Your task to perform on an android device: clear all cookies in the chrome app Image 0: 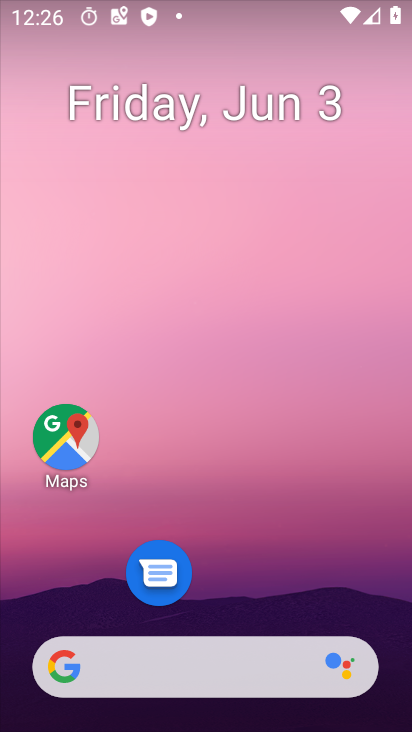
Step 0: drag from (269, 658) to (316, 66)
Your task to perform on an android device: clear all cookies in the chrome app Image 1: 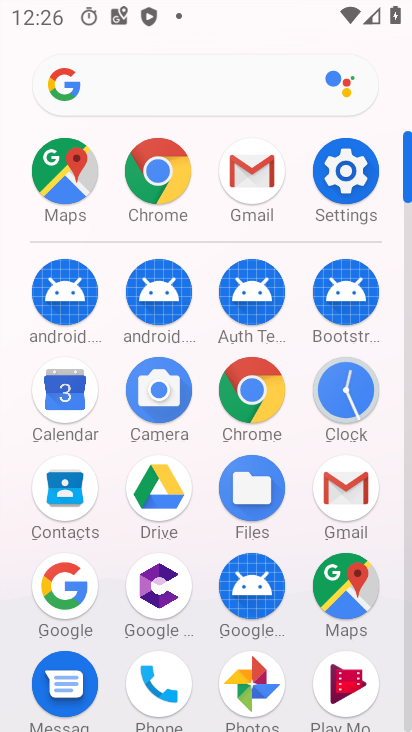
Step 1: click (263, 386)
Your task to perform on an android device: clear all cookies in the chrome app Image 2: 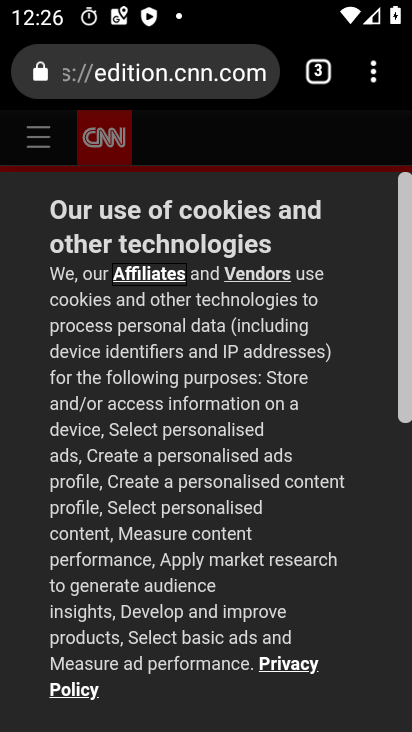
Step 2: drag from (368, 60) to (150, 558)
Your task to perform on an android device: clear all cookies in the chrome app Image 3: 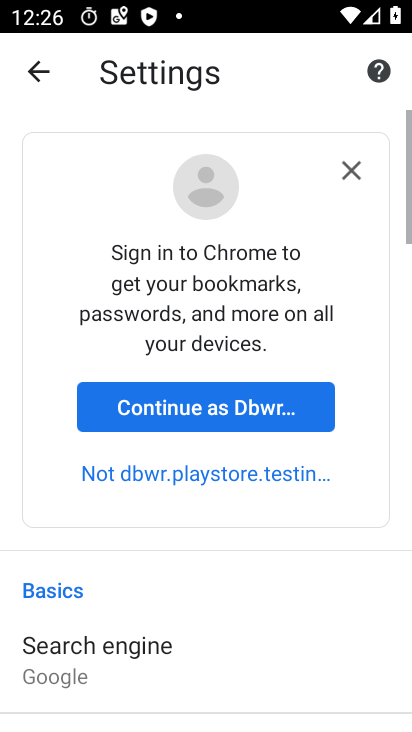
Step 3: drag from (156, 634) to (200, 152)
Your task to perform on an android device: clear all cookies in the chrome app Image 4: 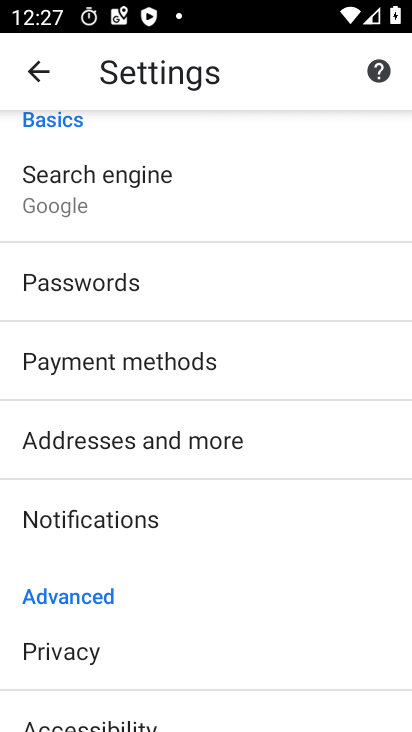
Step 4: click (166, 669)
Your task to perform on an android device: clear all cookies in the chrome app Image 5: 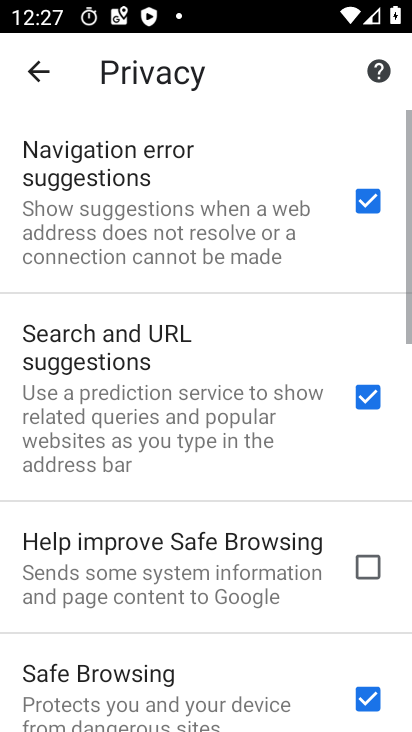
Step 5: drag from (260, 649) to (273, 154)
Your task to perform on an android device: clear all cookies in the chrome app Image 6: 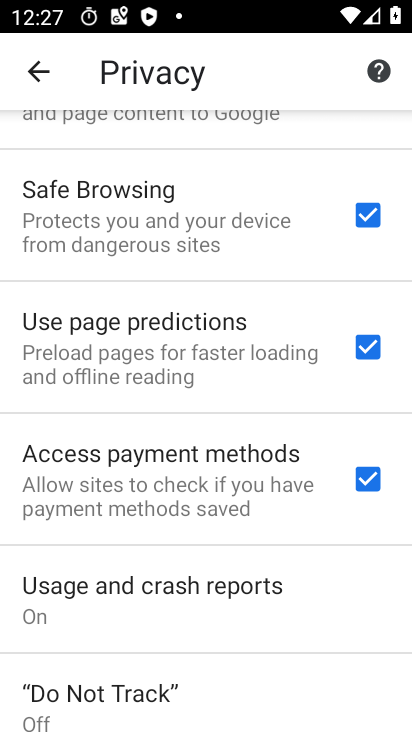
Step 6: drag from (221, 696) to (259, 220)
Your task to perform on an android device: clear all cookies in the chrome app Image 7: 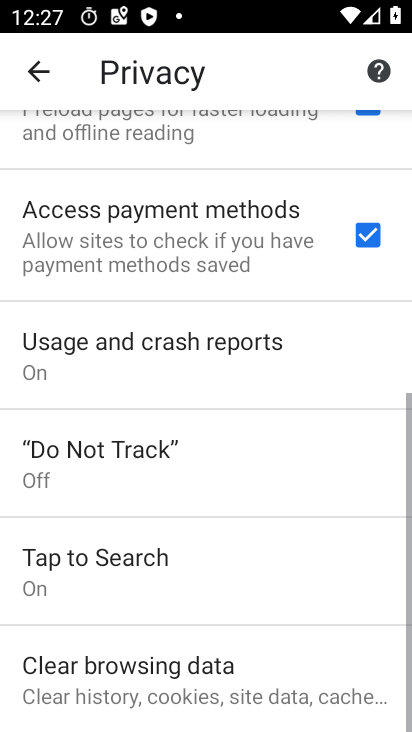
Step 7: click (160, 701)
Your task to perform on an android device: clear all cookies in the chrome app Image 8: 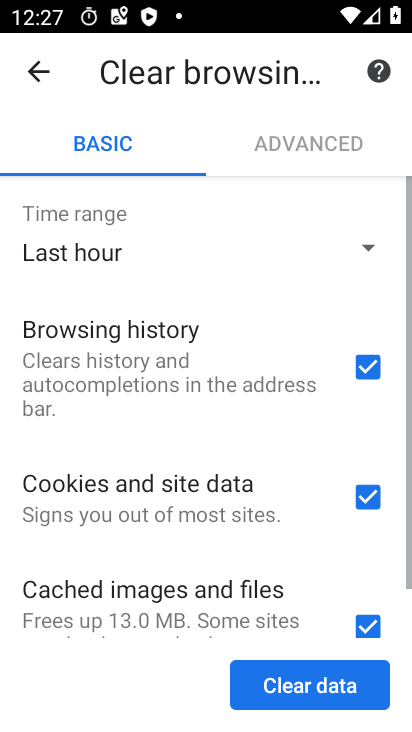
Step 8: click (285, 686)
Your task to perform on an android device: clear all cookies in the chrome app Image 9: 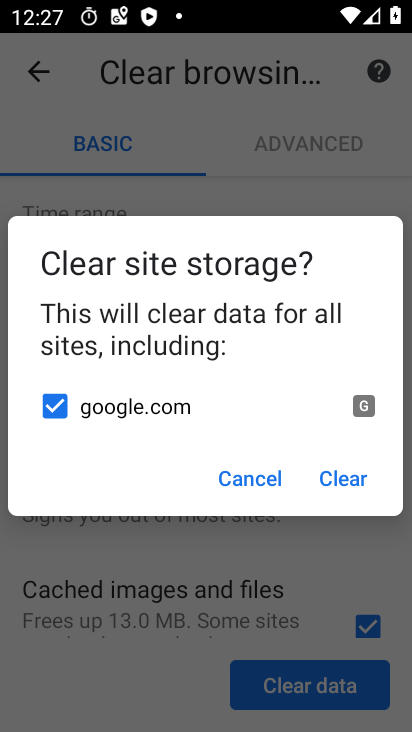
Step 9: click (365, 479)
Your task to perform on an android device: clear all cookies in the chrome app Image 10: 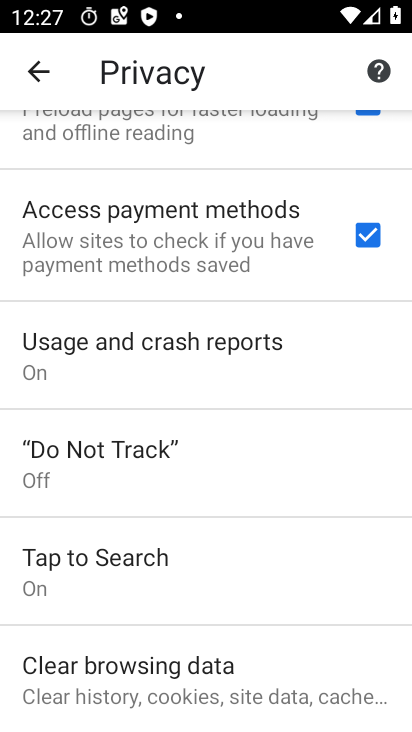
Step 10: task complete